Your task to perform on an android device: Open the web browser Image 0: 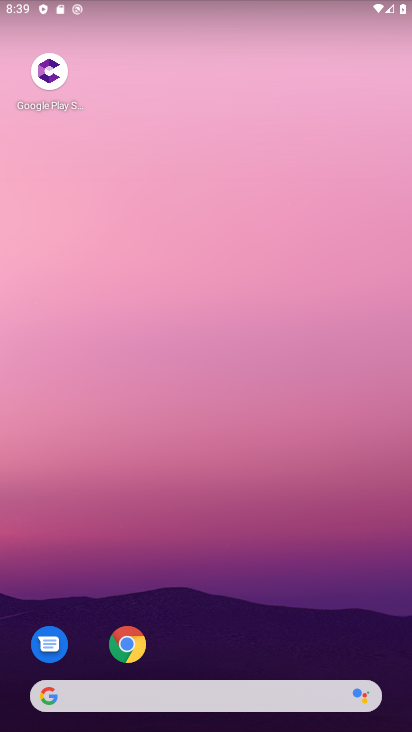
Step 0: click (136, 639)
Your task to perform on an android device: Open the web browser Image 1: 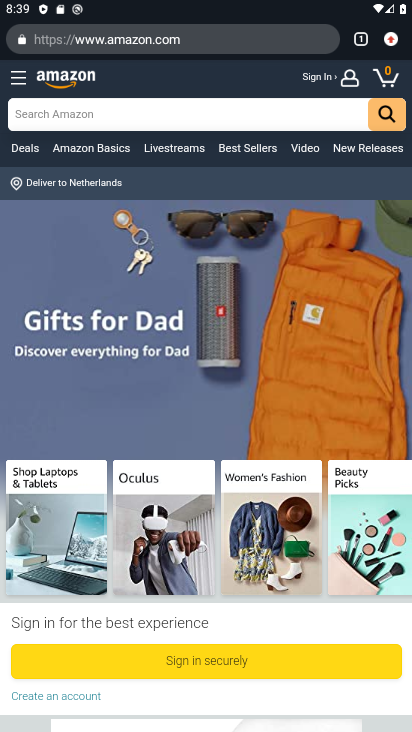
Step 1: click (358, 47)
Your task to perform on an android device: Open the web browser Image 2: 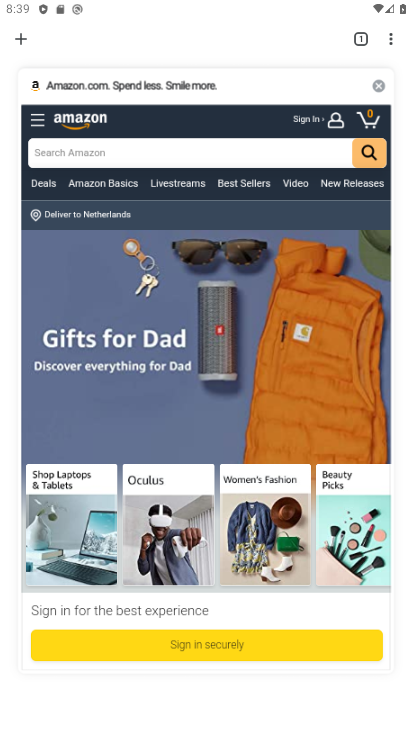
Step 2: click (15, 41)
Your task to perform on an android device: Open the web browser Image 3: 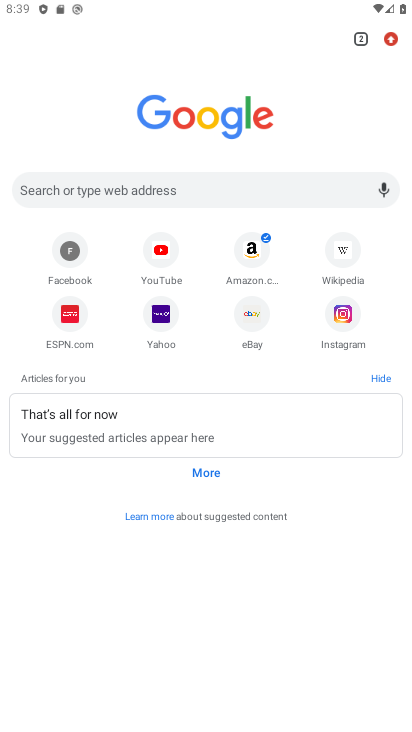
Step 3: task complete